Your task to perform on an android device: change notification settings in the gmail app Image 0: 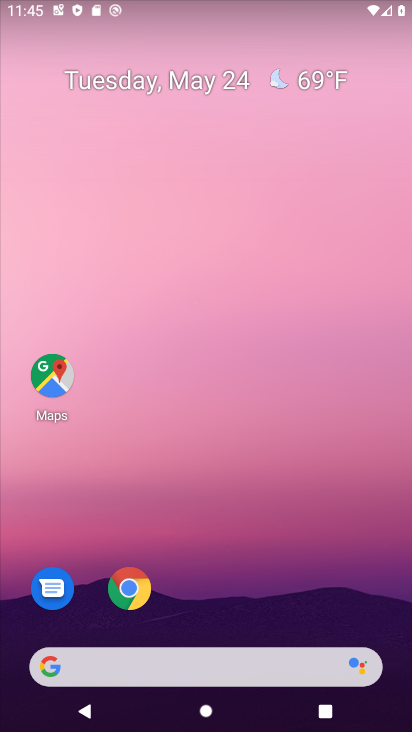
Step 0: drag from (210, 615) to (228, 40)
Your task to perform on an android device: change notification settings in the gmail app Image 1: 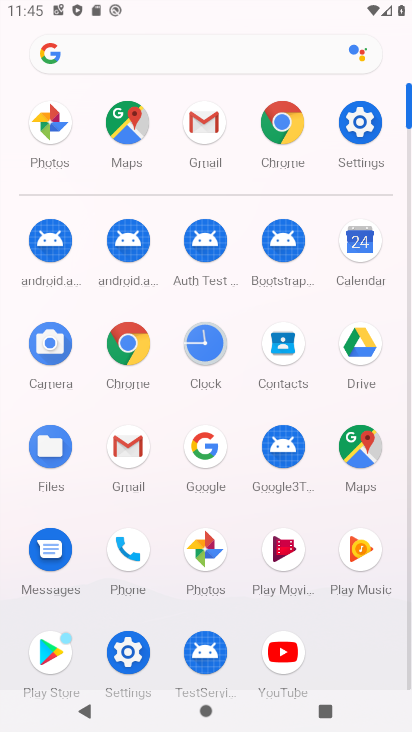
Step 1: click (201, 113)
Your task to perform on an android device: change notification settings in the gmail app Image 2: 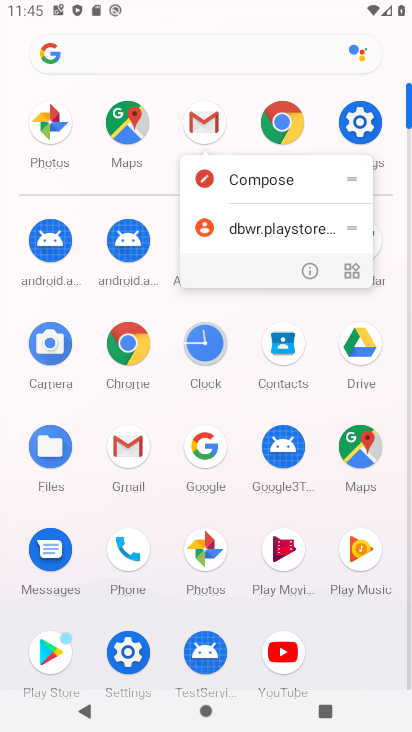
Step 2: click (202, 116)
Your task to perform on an android device: change notification settings in the gmail app Image 3: 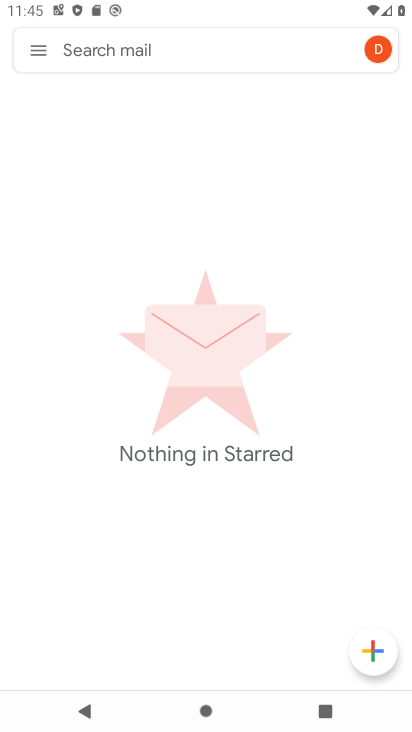
Step 3: click (40, 40)
Your task to perform on an android device: change notification settings in the gmail app Image 4: 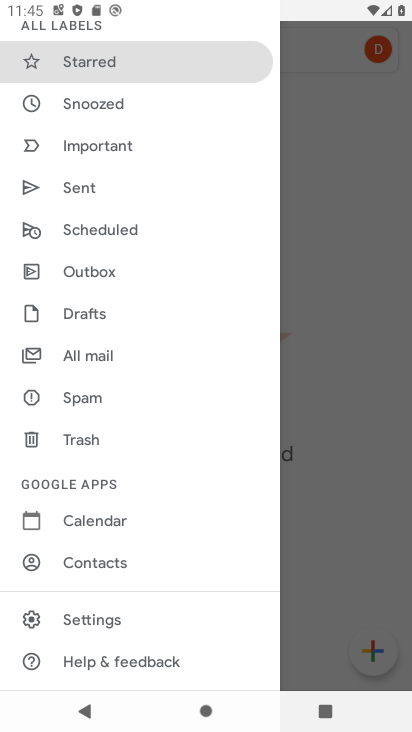
Step 4: click (130, 610)
Your task to perform on an android device: change notification settings in the gmail app Image 5: 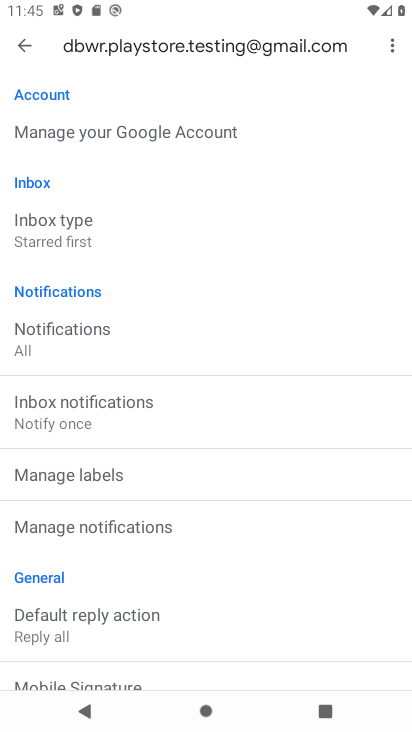
Step 5: click (23, 42)
Your task to perform on an android device: change notification settings in the gmail app Image 6: 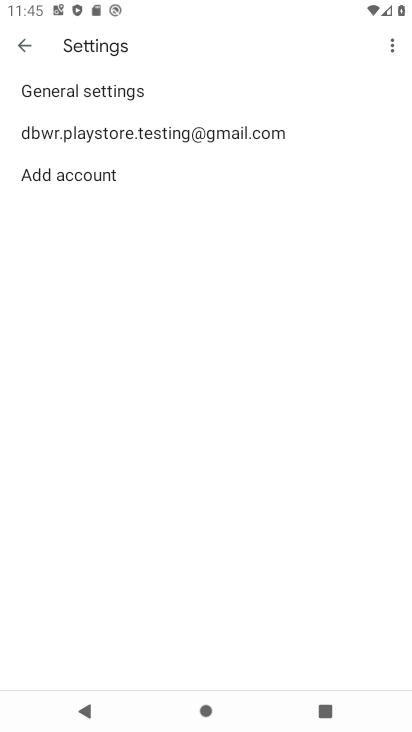
Step 6: click (150, 87)
Your task to perform on an android device: change notification settings in the gmail app Image 7: 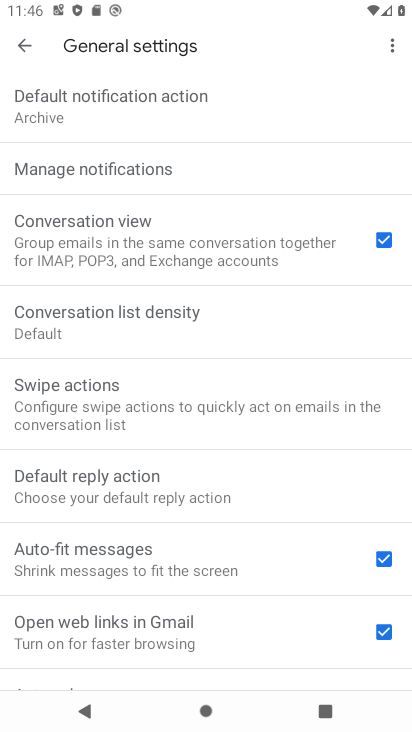
Step 7: click (186, 167)
Your task to perform on an android device: change notification settings in the gmail app Image 8: 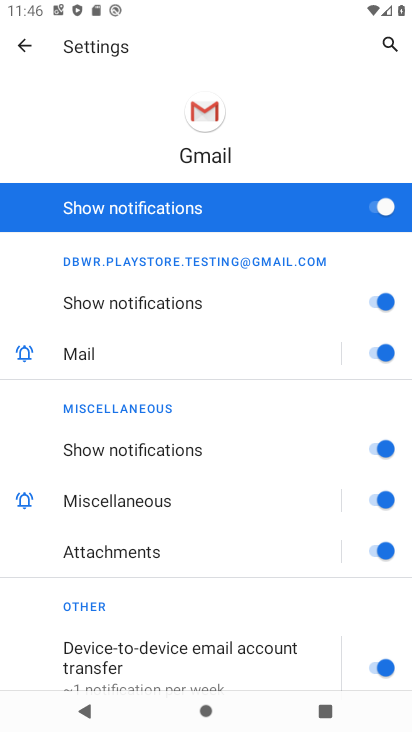
Step 8: click (382, 206)
Your task to perform on an android device: change notification settings in the gmail app Image 9: 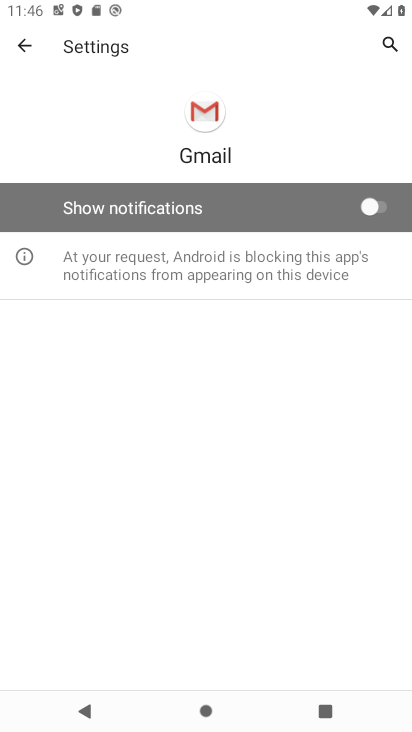
Step 9: task complete